Your task to perform on an android device: toggle airplane mode Image 0: 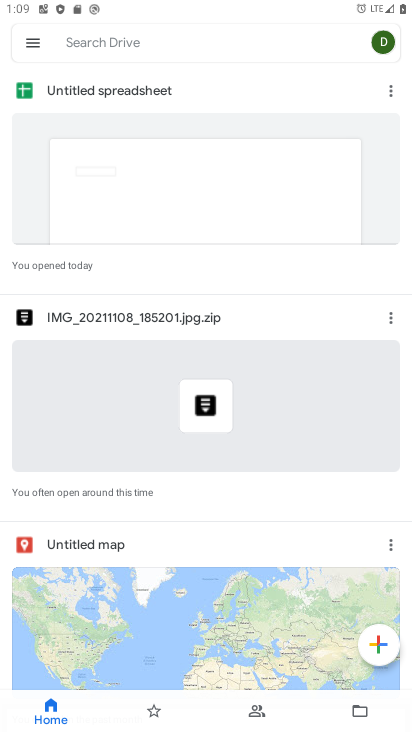
Step 0: press home button
Your task to perform on an android device: toggle airplane mode Image 1: 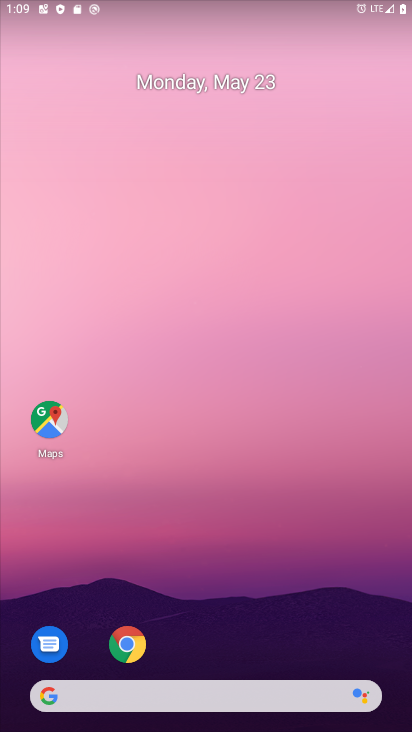
Step 1: drag from (239, 6) to (288, 608)
Your task to perform on an android device: toggle airplane mode Image 2: 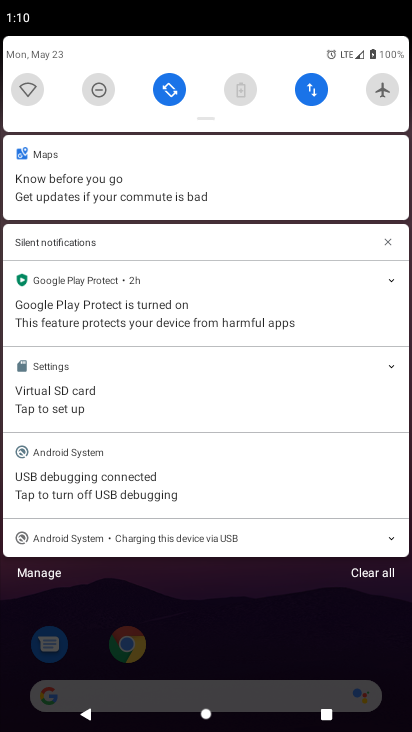
Step 2: click (377, 90)
Your task to perform on an android device: toggle airplane mode Image 3: 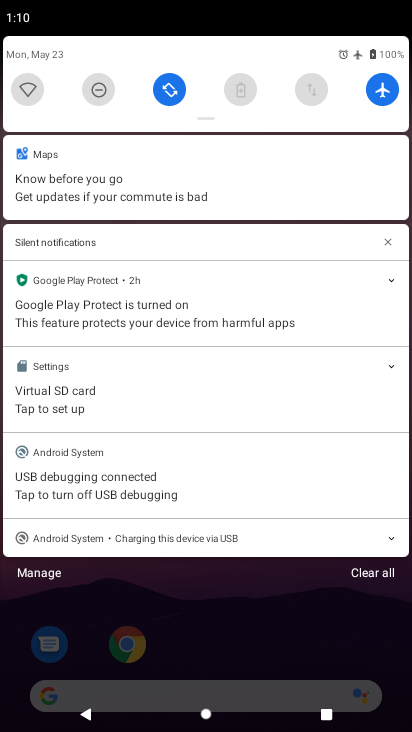
Step 3: task complete